Your task to perform on an android device: change the clock display to digital Image 0: 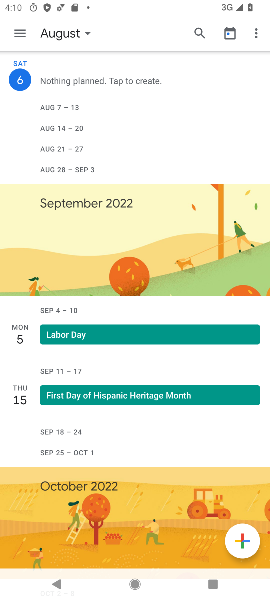
Step 0: press home button
Your task to perform on an android device: change the clock display to digital Image 1: 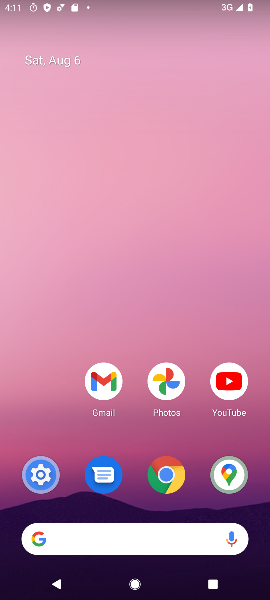
Step 1: drag from (18, 570) to (129, 156)
Your task to perform on an android device: change the clock display to digital Image 2: 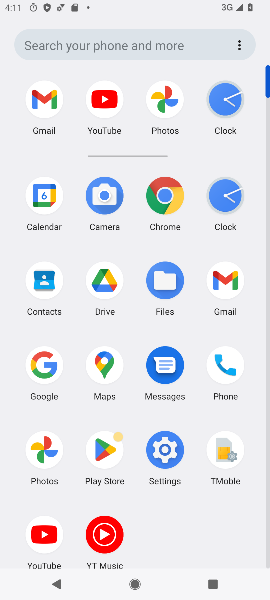
Step 2: click (218, 205)
Your task to perform on an android device: change the clock display to digital Image 3: 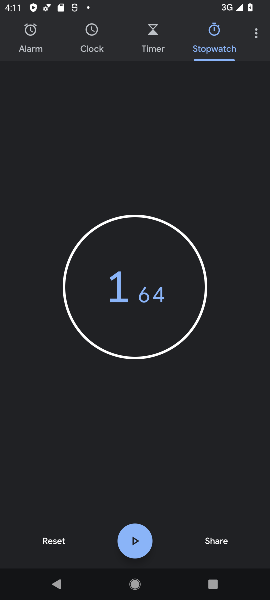
Step 3: click (90, 53)
Your task to perform on an android device: change the clock display to digital Image 4: 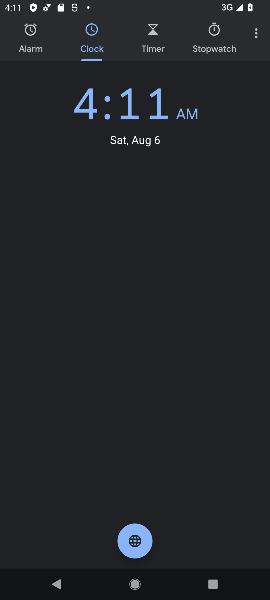
Step 4: click (256, 37)
Your task to perform on an android device: change the clock display to digital Image 5: 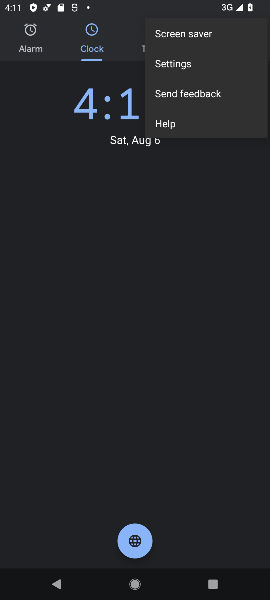
Step 5: click (175, 67)
Your task to perform on an android device: change the clock display to digital Image 6: 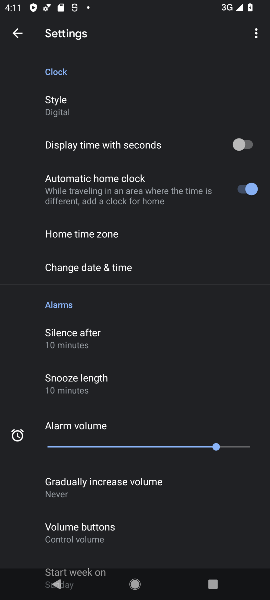
Step 6: task complete